Your task to perform on an android device: turn on showing notifications on the lock screen Image 0: 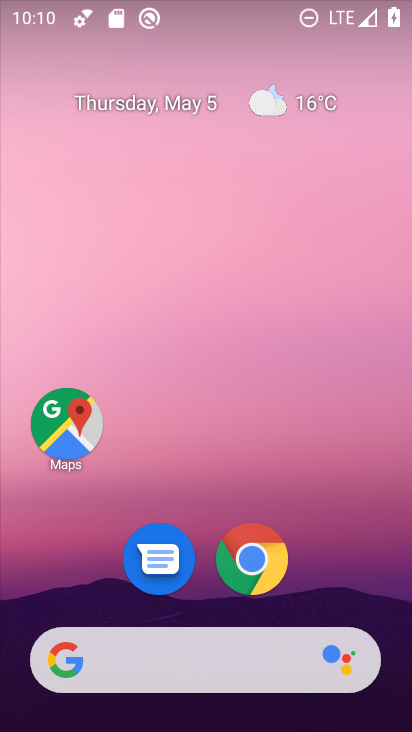
Step 0: drag from (386, 645) to (356, 60)
Your task to perform on an android device: turn on showing notifications on the lock screen Image 1: 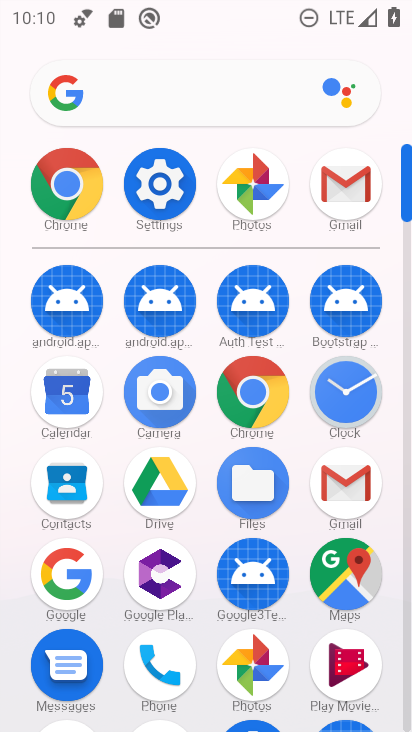
Step 1: click (170, 196)
Your task to perform on an android device: turn on showing notifications on the lock screen Image 2: 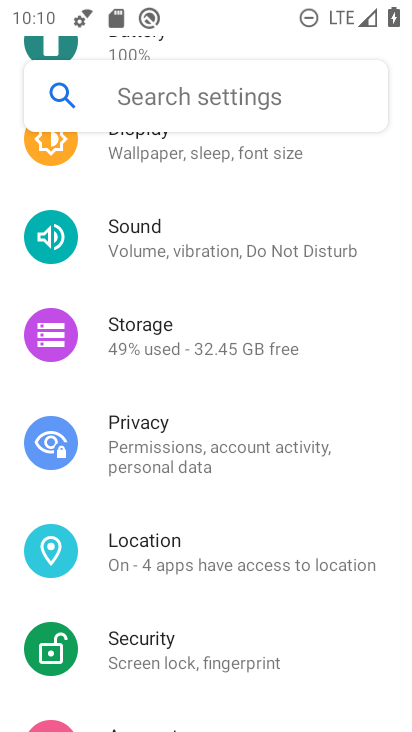
Step 2: drag from (197, 239) to (219, 698)
Your task to perform on an android device: turn on showing notifications on the lock screen Image 3: 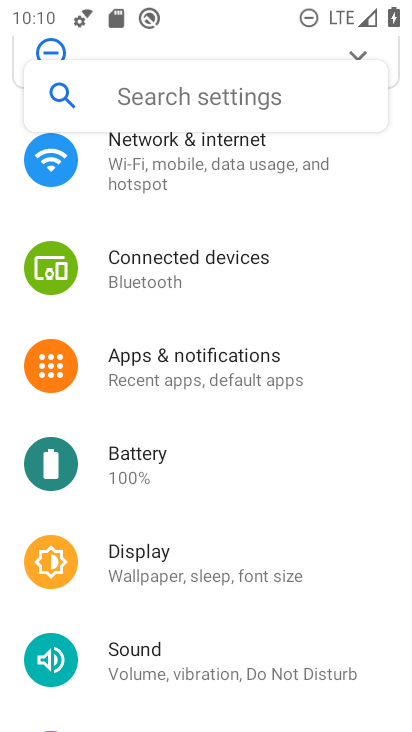
Step 3: click (207, 385)
Your task to perform on an android device: turn on showing notifications on the lock screen Image 4: 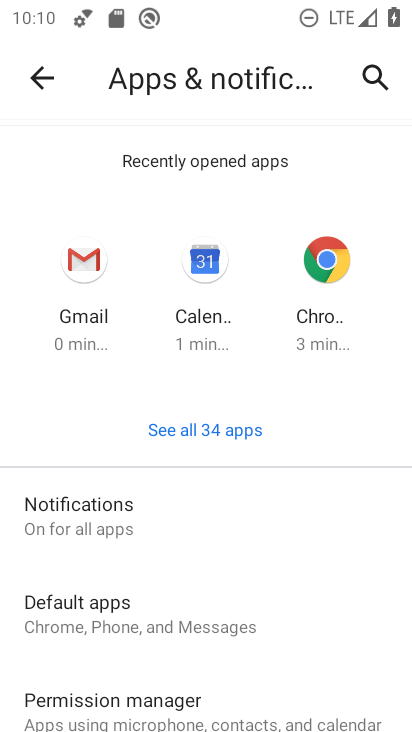
Step 4: click (173, 538)
Your task to perform on an android device: turn on showing notifications on the lock screen Image 5: 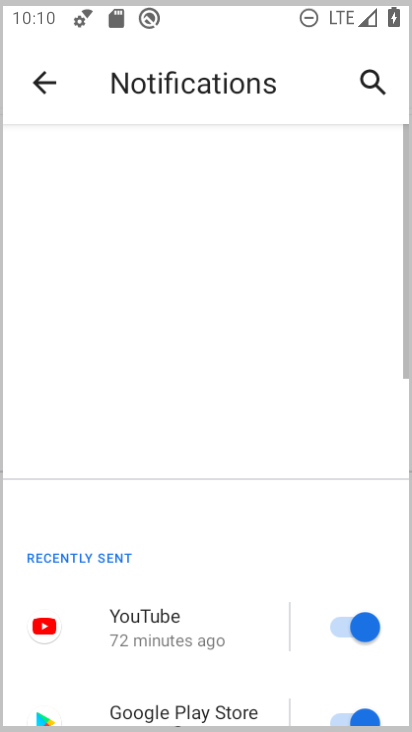
Step 5: drag from (176, 651) to (246, 103)
Your task to perform on an android device: turn on showing notifications on the lock screen Image 6: 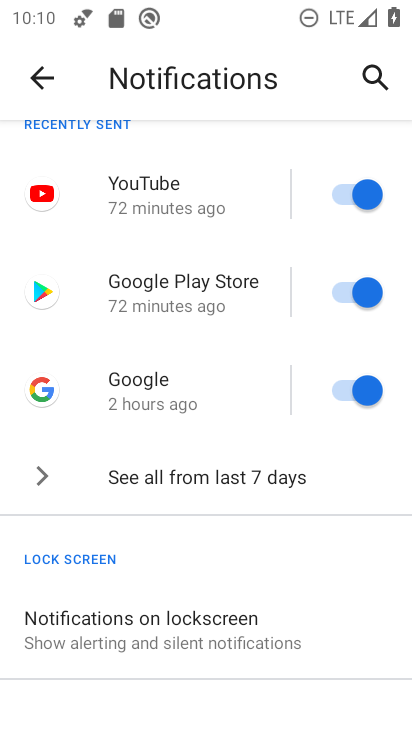
Step 6: click (204, 610)
Your task to perform on an android device: turn on showing notifications on the lock screen Image 7: 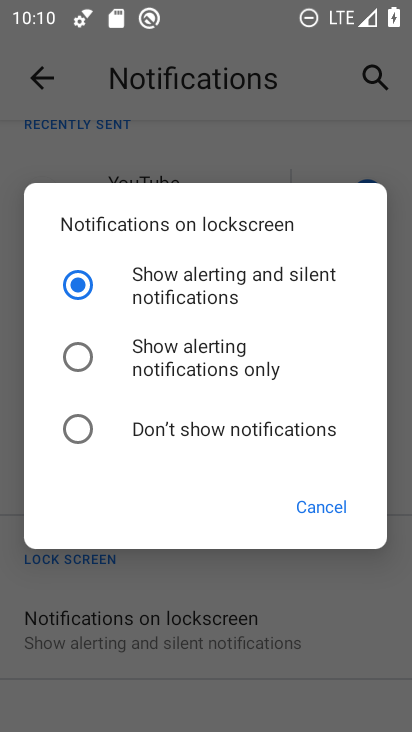
Step 7: task complete